Your task to perform on an android device: turn on sleep mode Image 0: 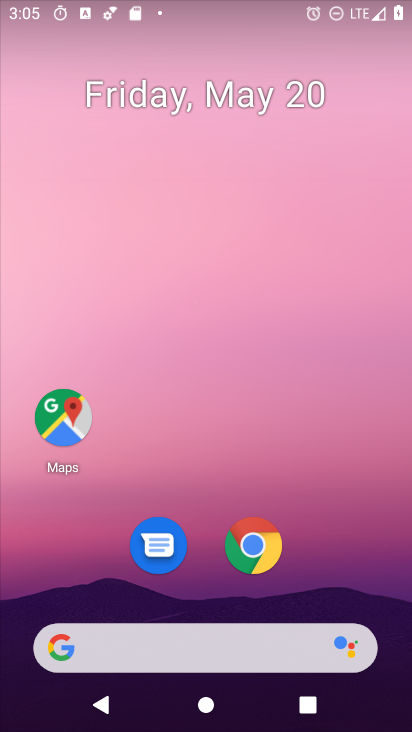
Step 0: drag from (169, 630) to (210, 2)
Your task to perform on an android device: turn on sleep mode Image 1: 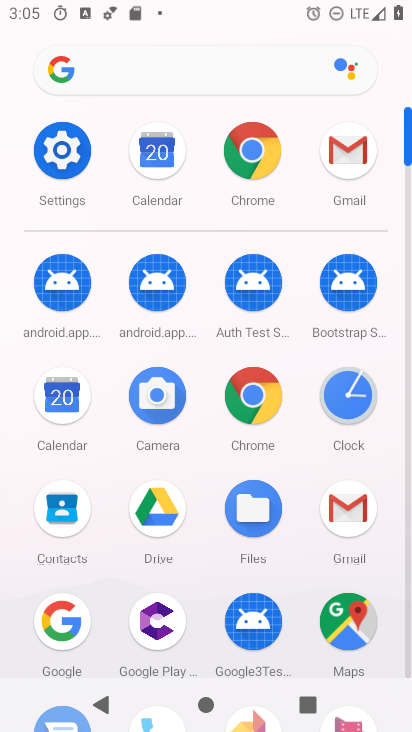
Step 1: click (63, 155)
Your task to perform on an android device: turn on sleep mode Image 2: 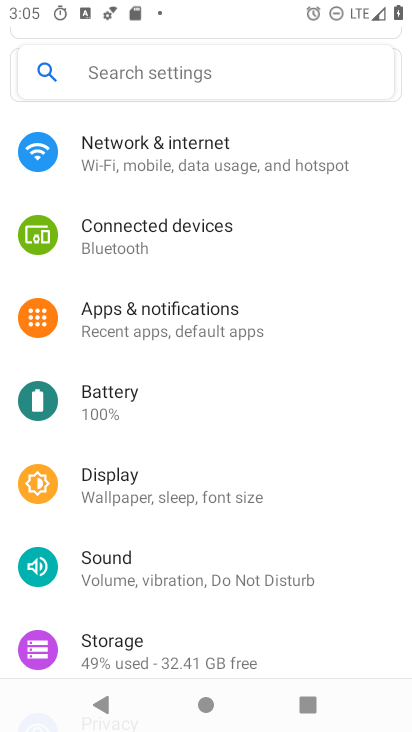
Step 2: click (242, 156)
Your task to perform on an android device: turn on sleep mode Image 3: 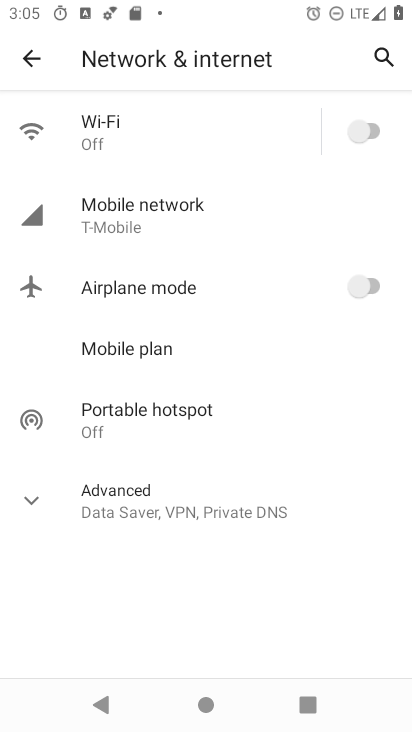
Step 3: press back button
Your task to perform on an android device: turn on sleep mode Image 4: 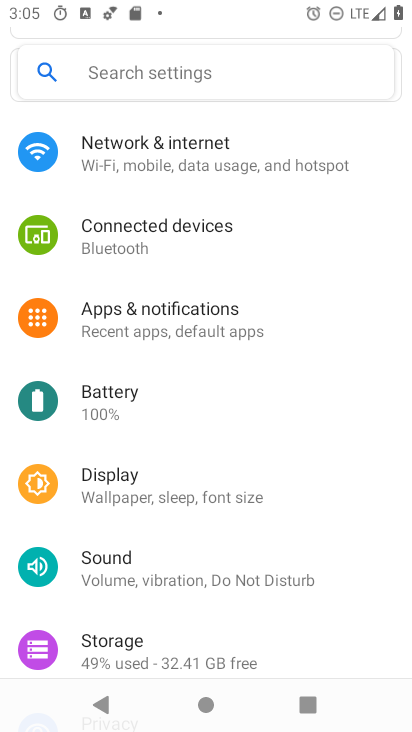
Step 4: drag from (154, 657) to (142, 144)
Your task to perform on an android device: turn on sleep mode Image 5: 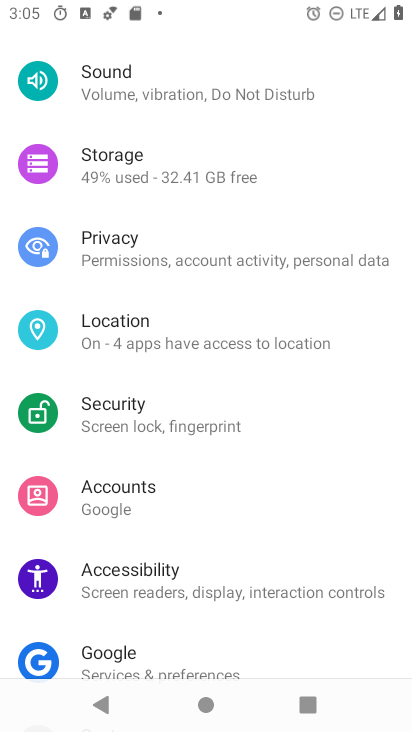
Step 5: drag from (309, 210) to (330, 617)
Your task to perform on an android device: turn on sleep mode Image 6: 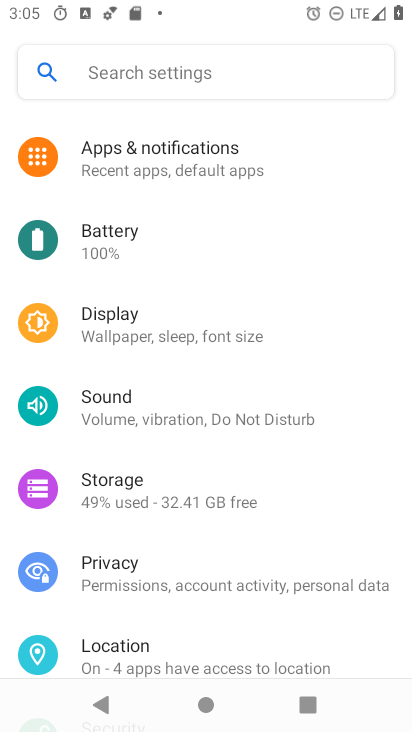
Step 6: click (189, 322)
Your task to perform on an android device: turn on sleep mode Image 7: 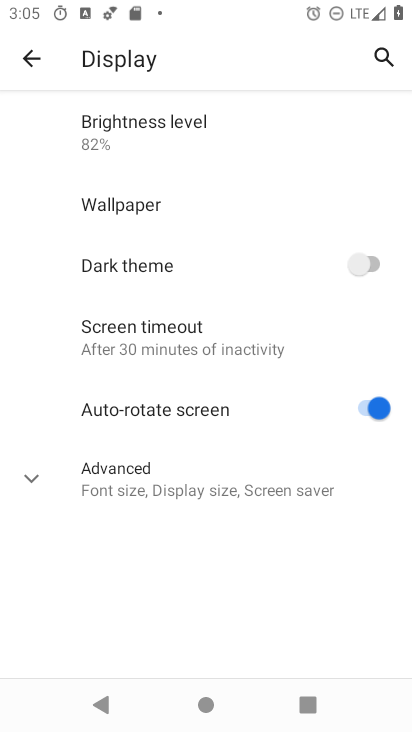
Step 7: task complete